Your task to perform on an android device: Open Chrome and go to settings Image 0: 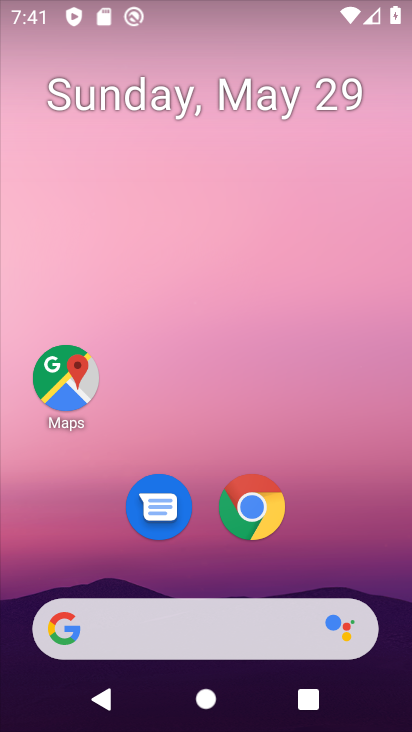
Step 0: click (256, 505)
Your task to perform on an android device: Open Chrome and go to settings Image 1: 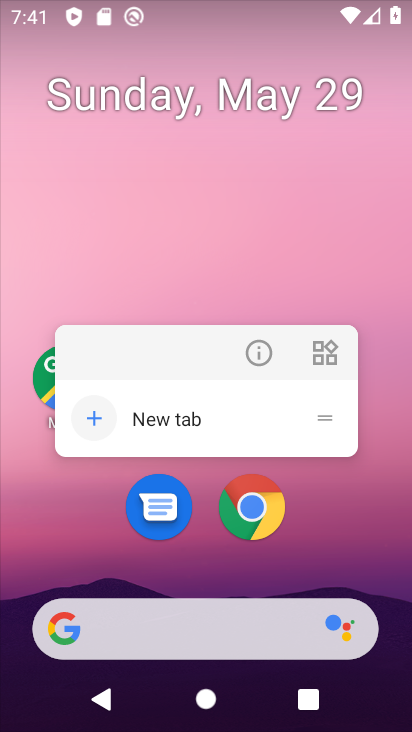
Step 1: click (256, 504)
Your task to perform on an android device: Open Chrome and go to settings Image 2: 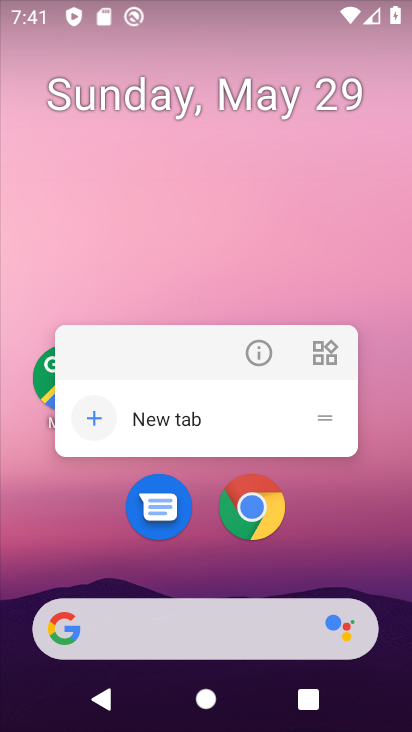
Step 2: click (369, 566)
Your task to perform on an android device: Open Chrome and go to settings Image 3: 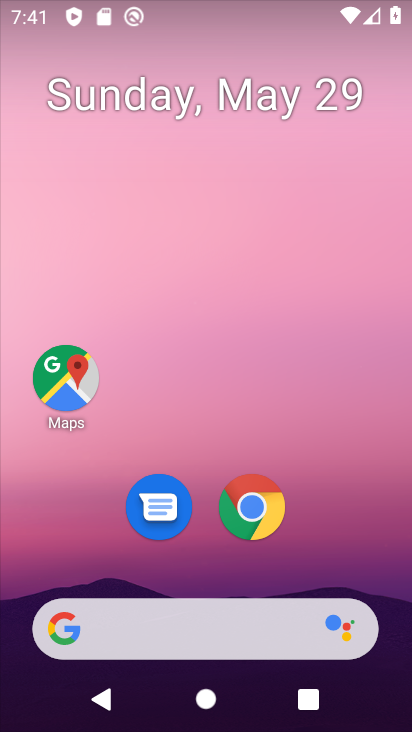
Step 3: drag from (363, 559) to (340, 107)
Your task to perform on an android device: Open Chrome and go to settings Image 4: 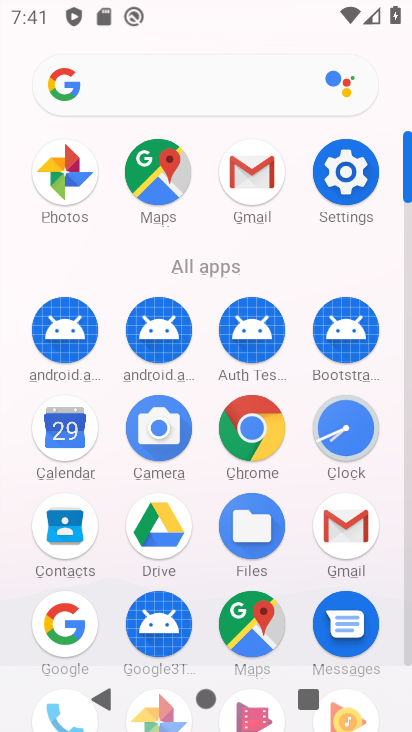
Step 4: click (242, 428)
Your task to perform on an android device: Open Chrome and go to settings Image 5: 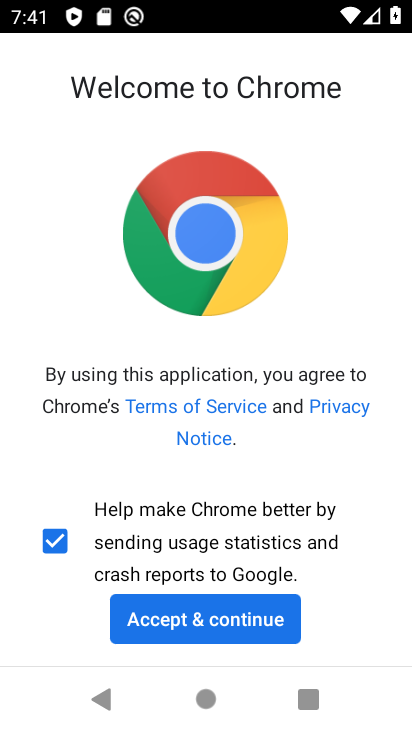
Step 5: click (258, 621)
Your task to perform on an android device: Open Chrome and go to settings Image 6: 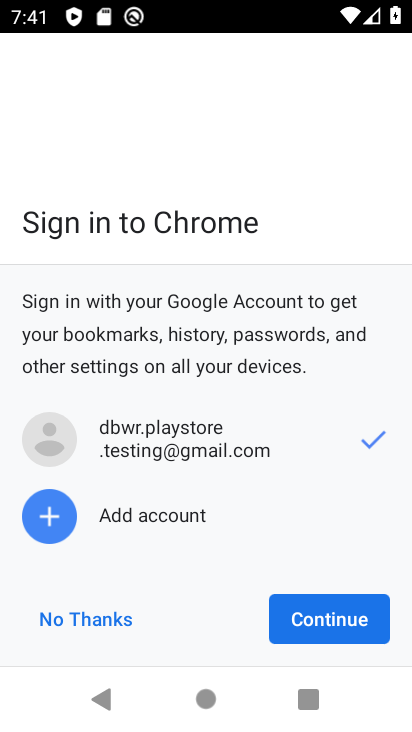
Step 6: click (333, 626)
Your task to perform on an android device: Open Chrome and go to settings Image 7: 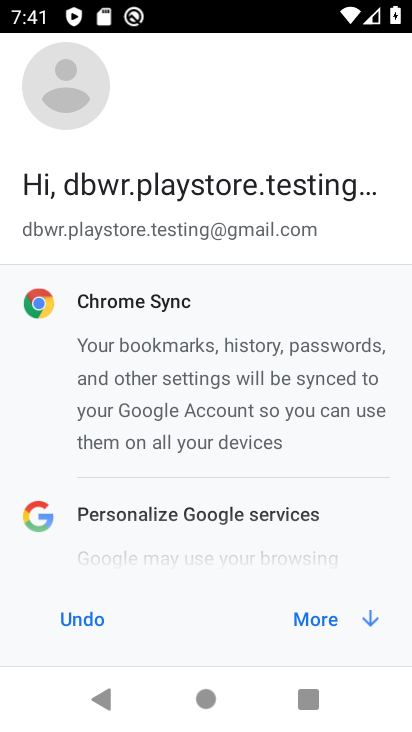
Step 7: click (331, 622)
Your task to perform on an android device: Open Chrome and go to settings Image 8: 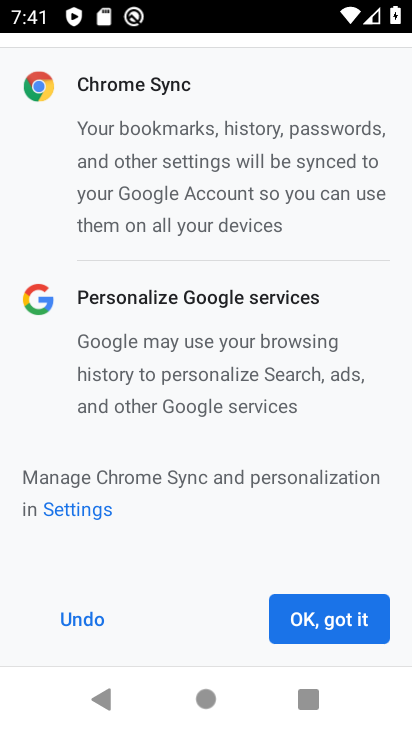
Step 8: click (331, 622)
Your task to perform on an android device: Open Chrome and go to settings Image 9: 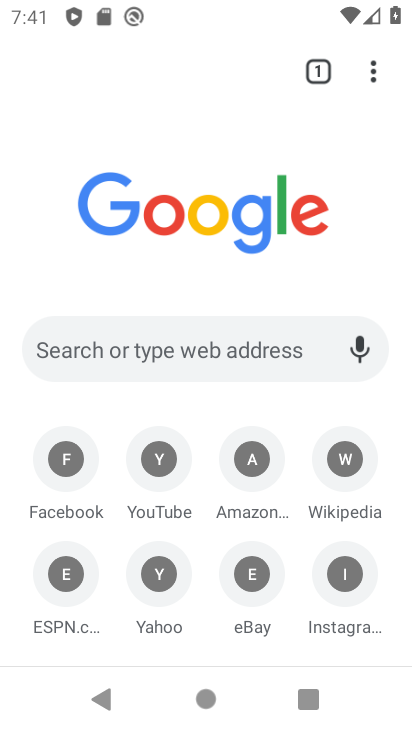
Step 9: drag from (358, 68) to (217, 495)
Your task to perform on an android device: Open Chrome and go to settings Image 10: 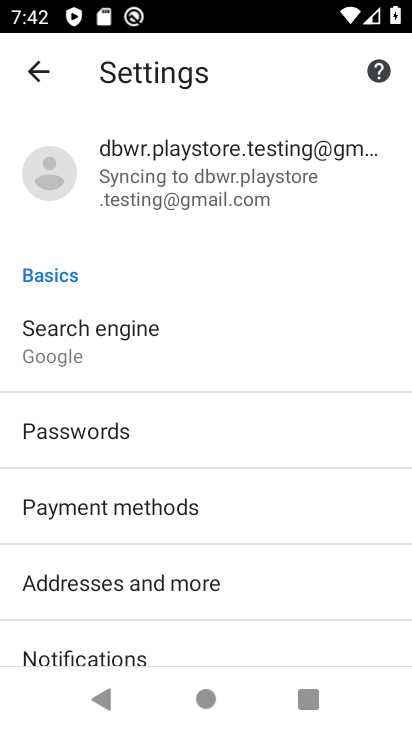
Step 10: drag from (225, 503) to (241, 62)
Your task to perform on an android device: Open Chrome and go to settings Image 11: 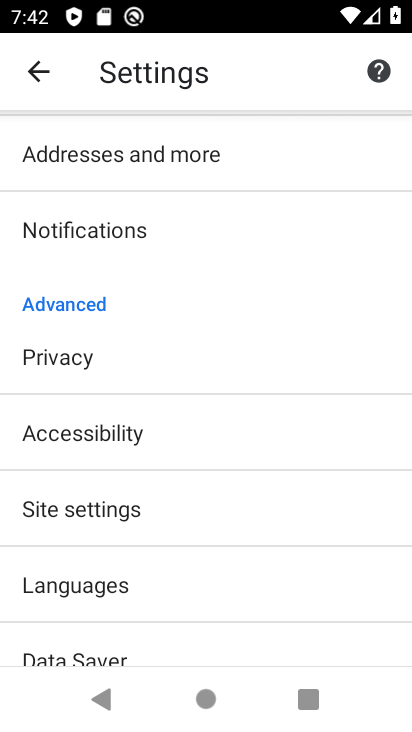
Step 11: click (144, 505)
Your task to perform on an android device: Open Chrome and go to settings Image 12: 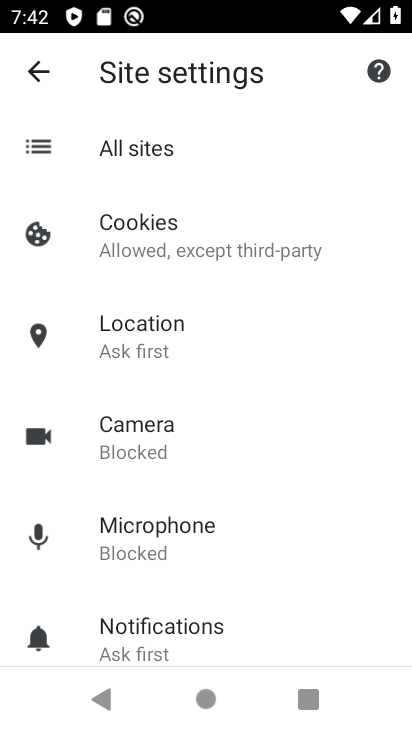
Step 12: drag from (230, 508) to (242, 95)
Your task to perform on an android device: Open Chrome and go to settings Image 13: 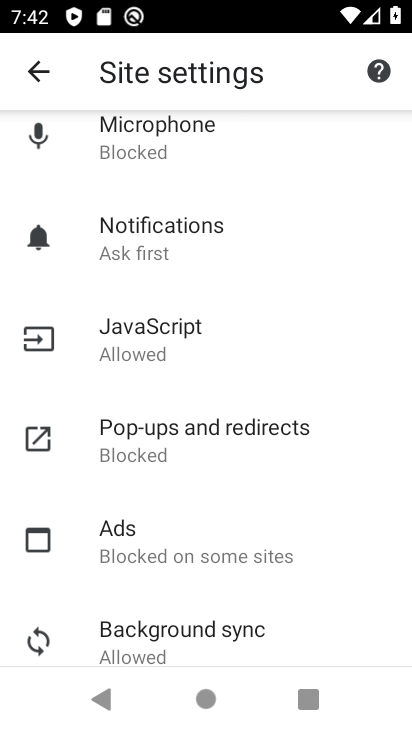
Step 13: drag from (186, 480) to (217, 372)
Your task to perform on an android device: Open Chrome and go to settings Image 14: 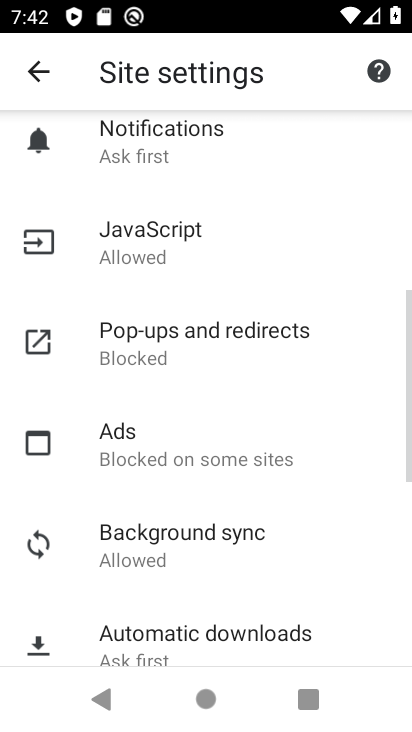
Step 14: click (178, 247)
Your task to perform on an android device: Open Chrome and go to settings Image 15: 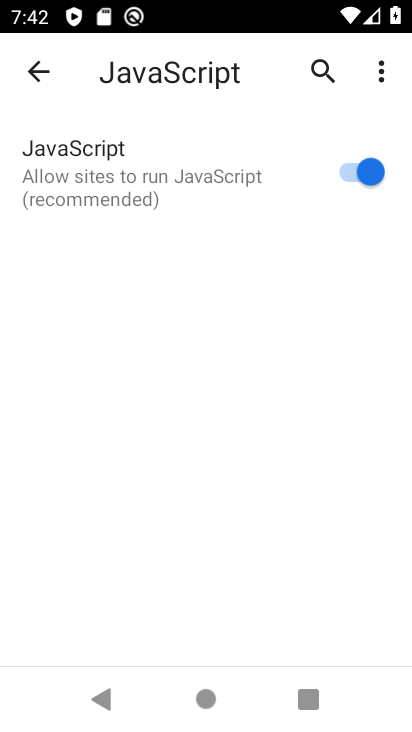
Step 15: click (31, 68)
Your task to perform on an android device: Open Chrome and go to settings Image 16: 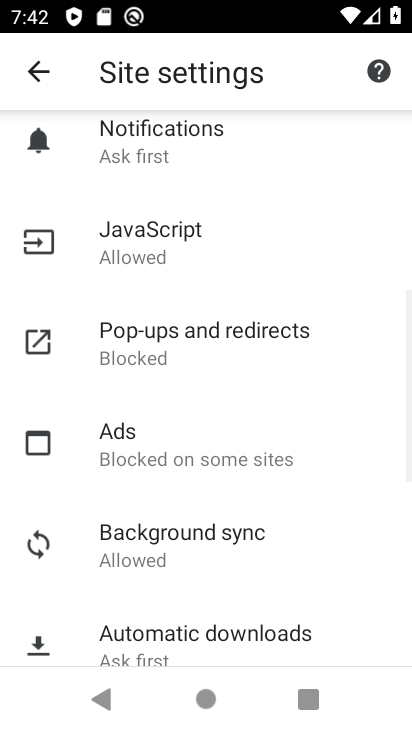
Step 16: drag from (257, 618) to (270, 333)
Your task to perform on an android device: Open Chrome and go to settings Image 17: 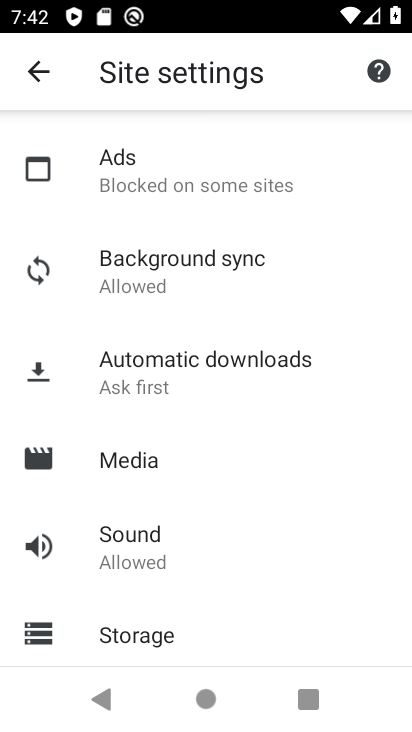
Step 17: drag from (255, 191) to (292, 615)
Your task to perform on an android device: Open Chrome and go to settings Image 18: 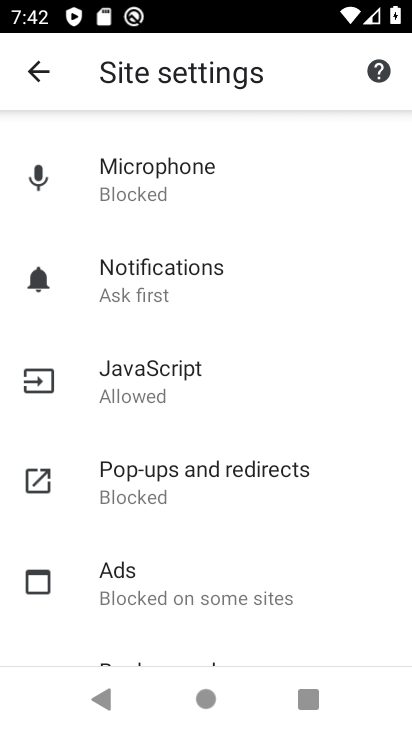
Step 18: drag from (284, 275) to (269, 565)
Your task to perform on an android device: Open Chrome and go to settings Image 19: 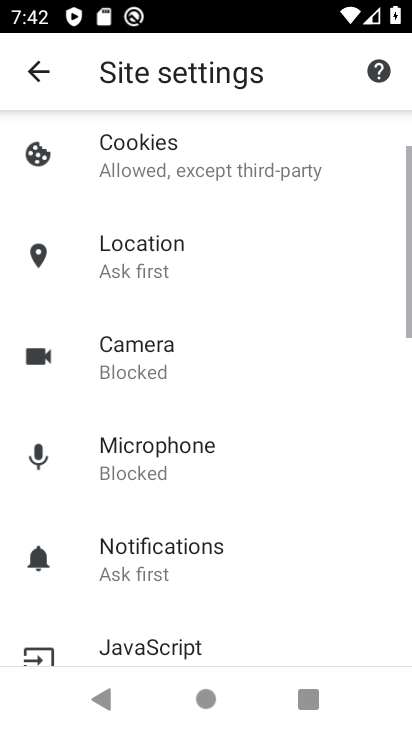
Step 19: drag from (300, 236) to (268, 511)
Your task to perform on an android device: Open Chrome and go to settings Image 20: 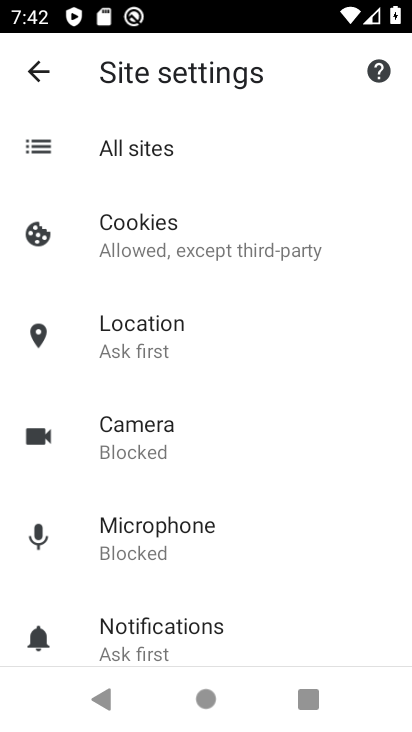
Step 20: click (209, 147)
Your task to perform on an android device: Open Chrome and go to settings Image 21: 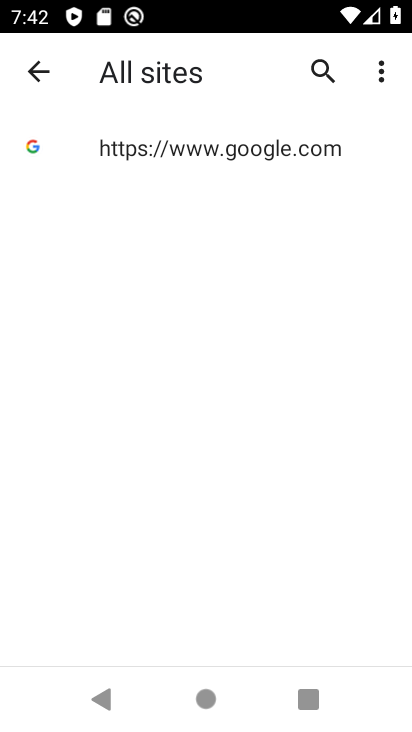
Step 21: click (46, 72)
Your task to perform on an android device: Open Chrome and go to settings Image 22: 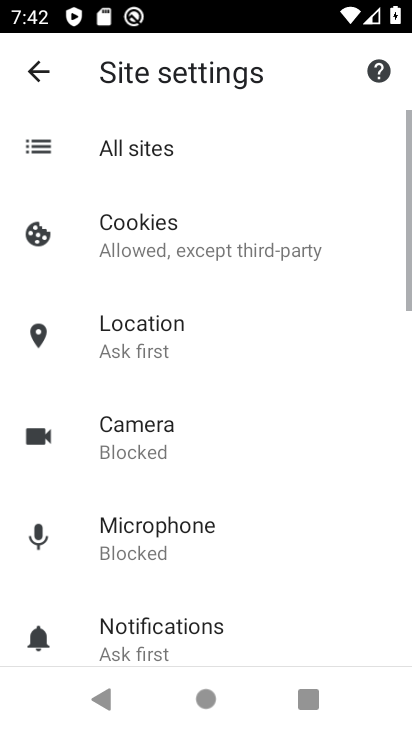
Step 22: click (46, 71)
Your task to perform on an android device: Open Chrome and go to settings Image 23: 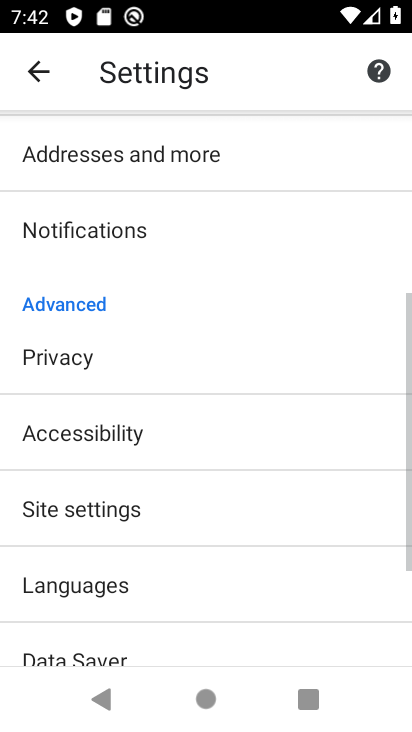
Step 23: task complete